Your task to perform on an android device: change the clock display to analog Image 0: 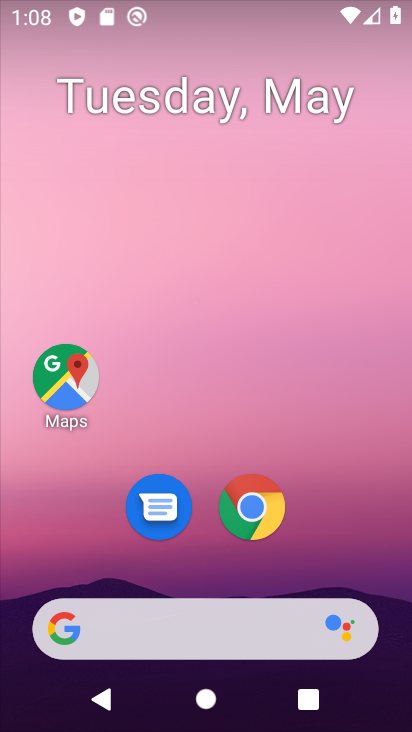
Step 0: drag from (390, 581) to (350, 83)
Your task to perform on an android device: change the clock display to analog Image 1: 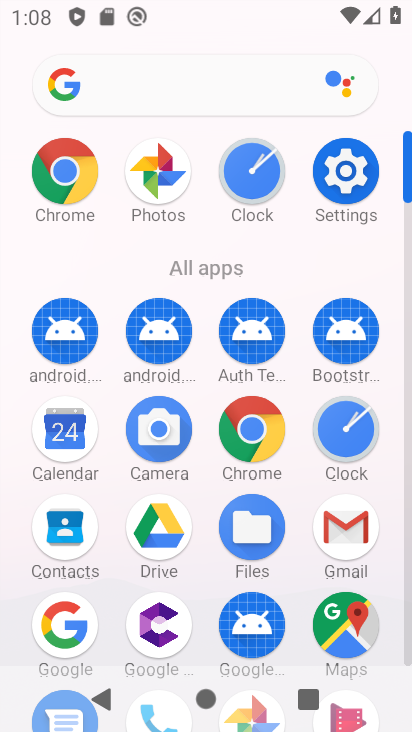
Step 1: click (263, 183)
Your task to perform on an android device: change the clock display to analog Image 2: 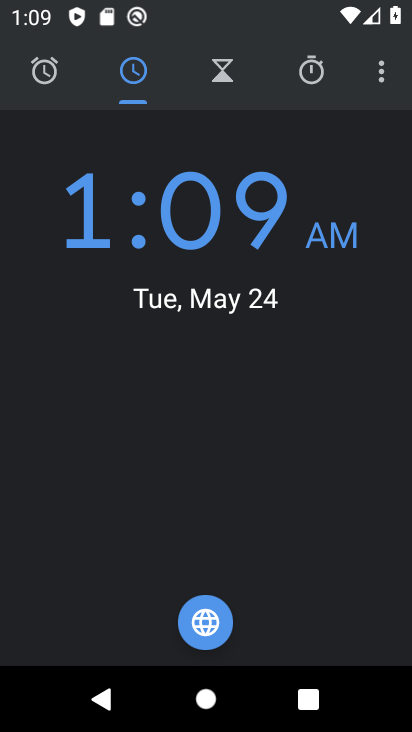
Step 2: click (382, 92)
Your task to perform on an android device: change the clock display to analog Image 3: 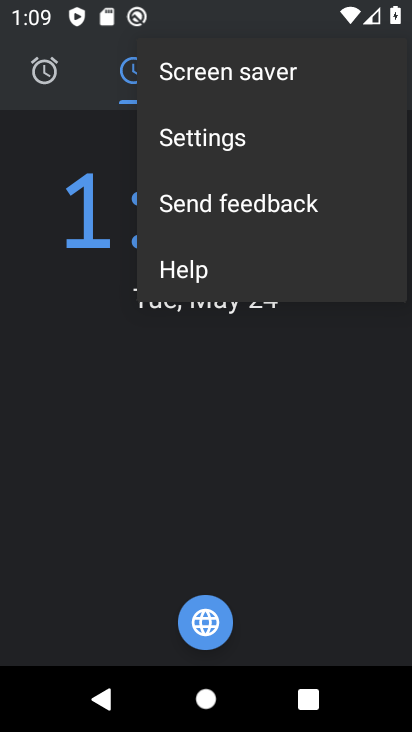
Step 3: click (304, 125)
Your task to perform on an android device: change the clock display to analog Image 4: 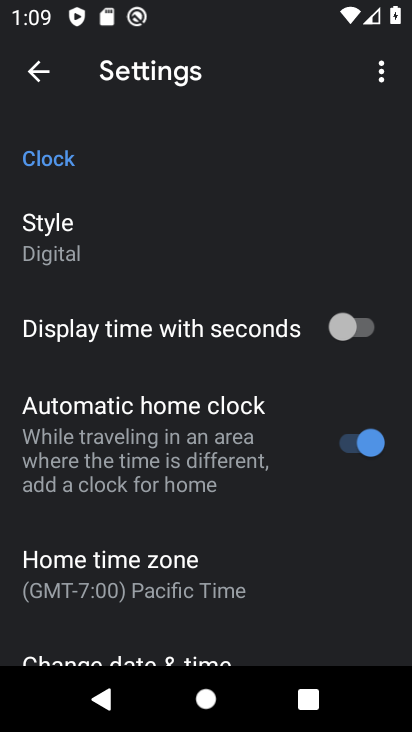
Step 4: click (185, 226)
Your task to perform on an android device: change the clock display to analog Image 5: 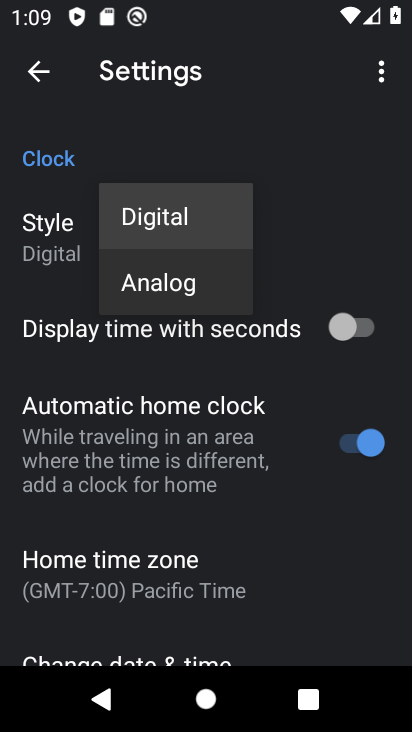
Step 5: click (192, 279)
Your task to perform on an android device: change the clock display to analog Image 6: 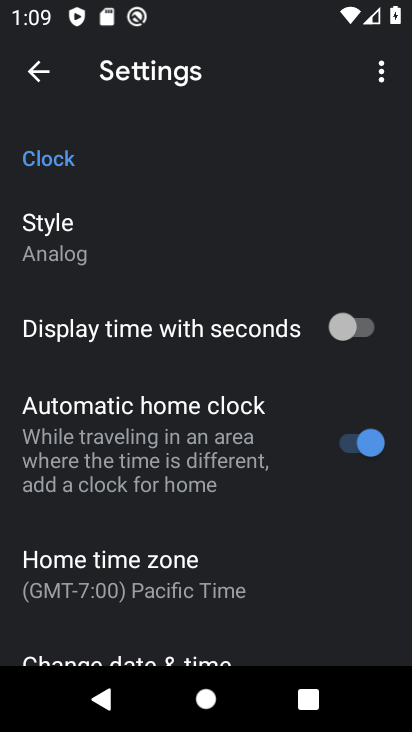
Step 6: task complete